Your task to perform on an android device: Find coffee shops on Maps Image 0: 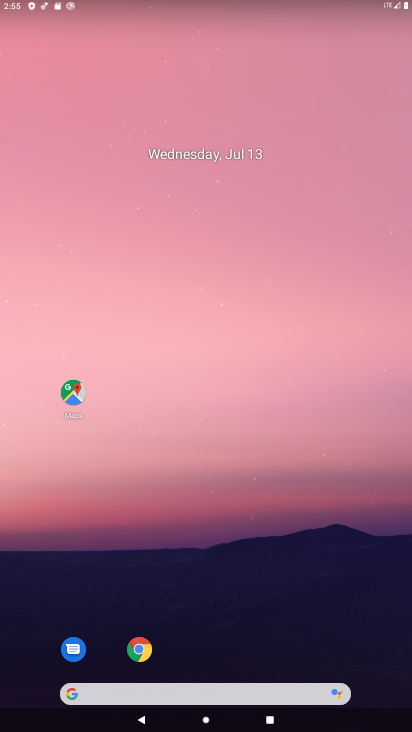
Step 0: press home button
Your task to perform on an android device: Find coffee shops on Maps Image 1: 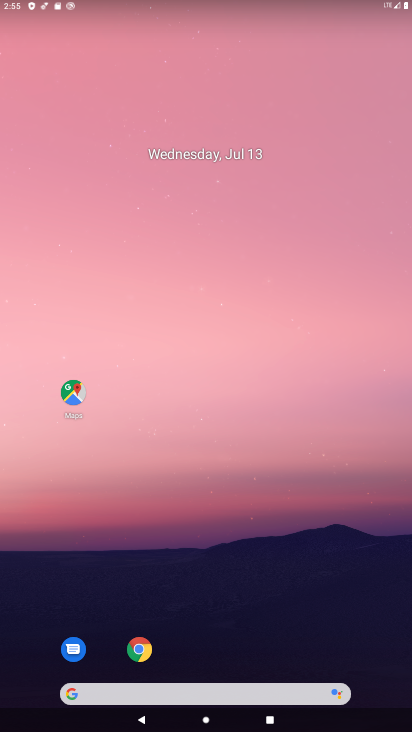
Step 1: click (72, 388)
Your task to perform on an android device: Find coffee shops on Maps Image 2: 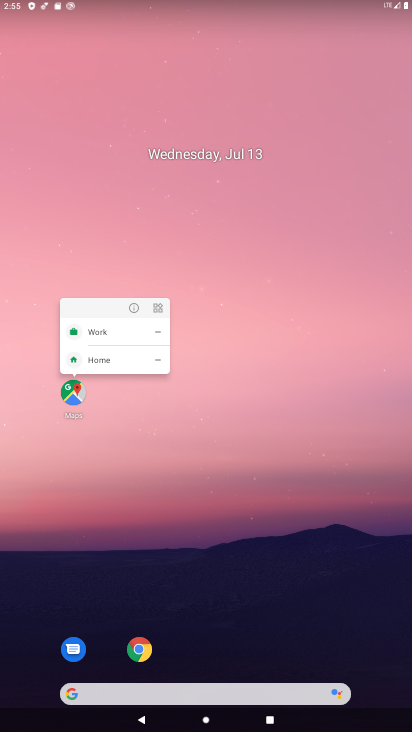
Step 2: click (66, 395)
Your task to perform on an android device: Find coffee shops on Maps Image 3: 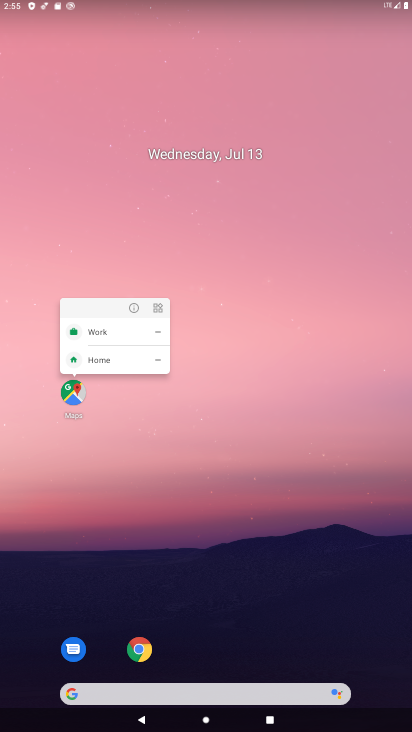
Step 3: click (70, 394)
Your task to perform on an android device: Find coffee shops on Maps Image 4: 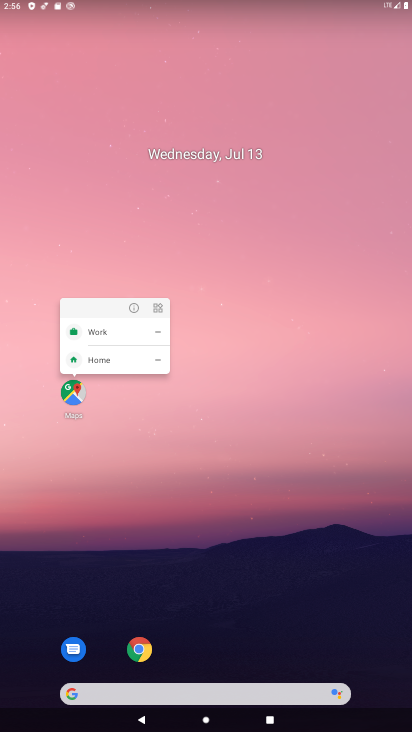
Step 4: click (70, 394)
Your task to perform on an android device: Find coffee shops on Maps Image 5: 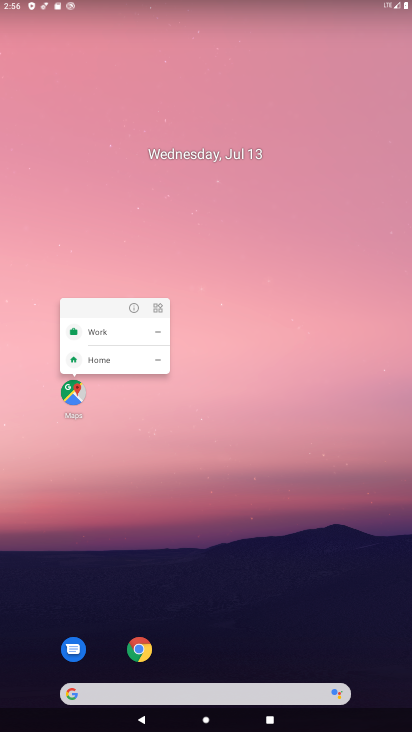
Step 5: click (70, 392)
Your task to perform on an android device: Find coffee shops on Maps Image 6: 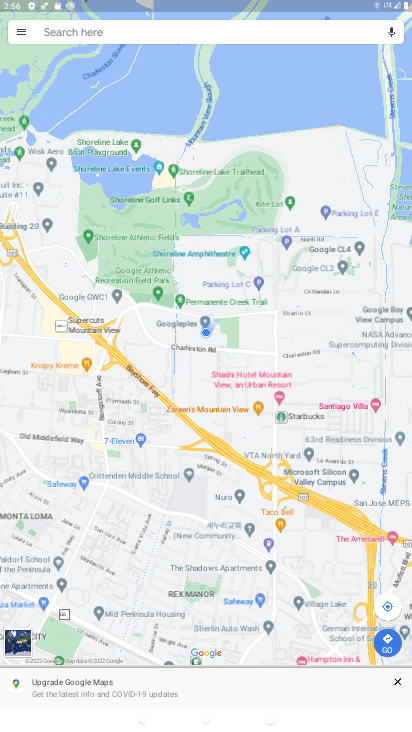
Step 6: click (78, 34)
Your task to perform on an android device: Find coffee shops on Maps Image 7: 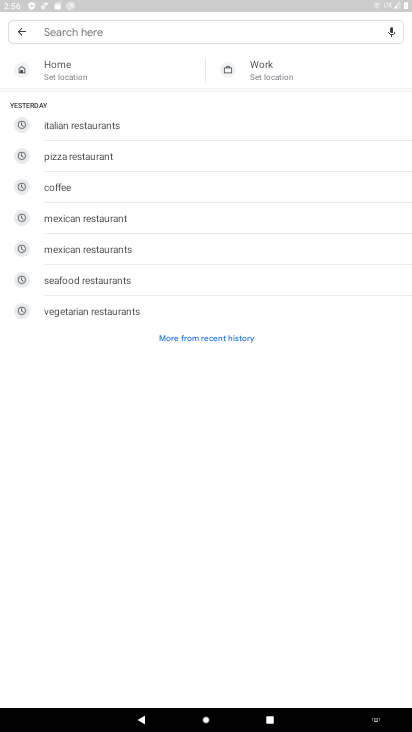
Step 7: click (62, 185)
Your task to perform on an android device: Find coffee shops on Maps Image 8: 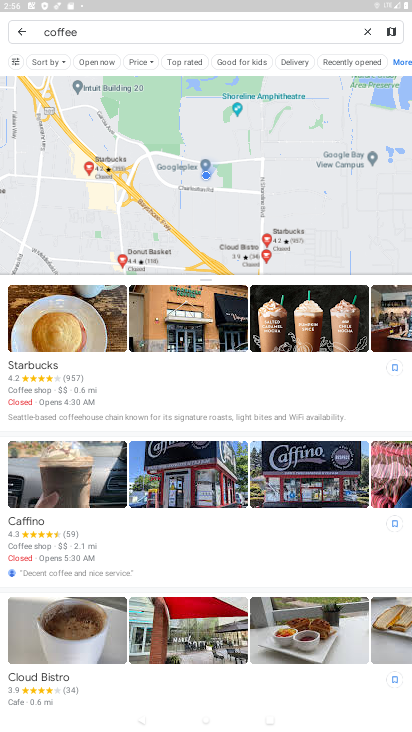
Step 8: task complete